Your task to perform on an android device: Is it going to rain this weekend? Image 0: 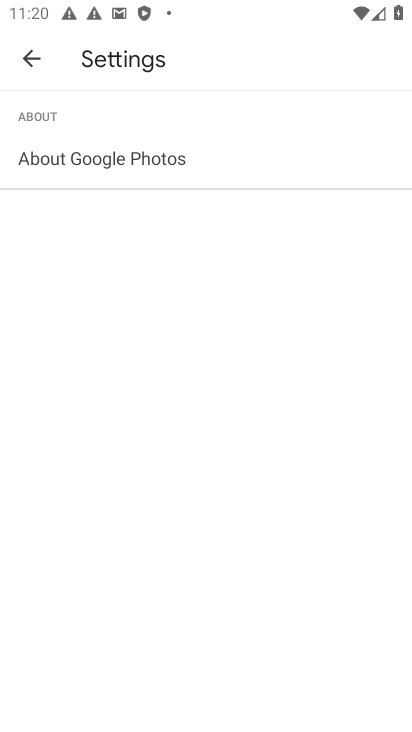
Step 0: press back button
Your task to perform on an android device: Is it going to rain this weekend? Image 1: 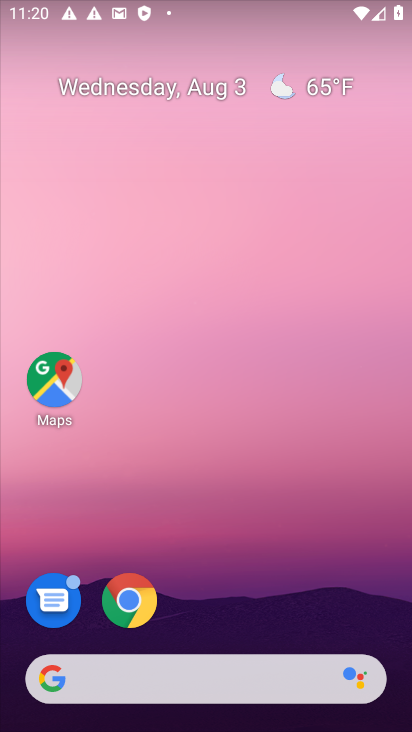
Step 1: drag from (210, 646) to (149, 19)
Your task to perform on an android device: Is it going to rain this weekend? Image 2: 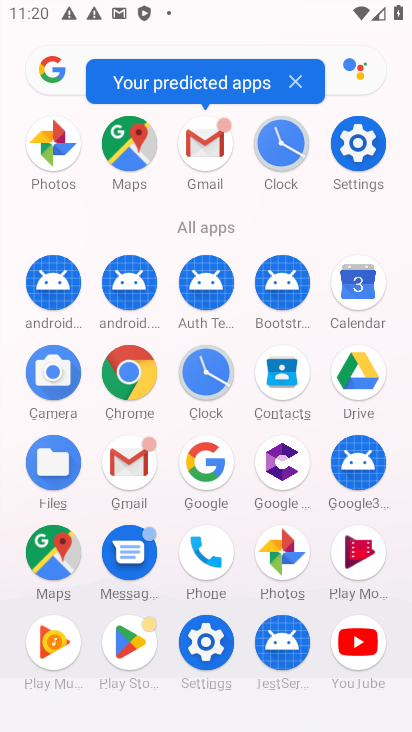
Step 2: click (213, 480)
Your task to perform on an android device: Is it going to rain this weekend? Image 3: 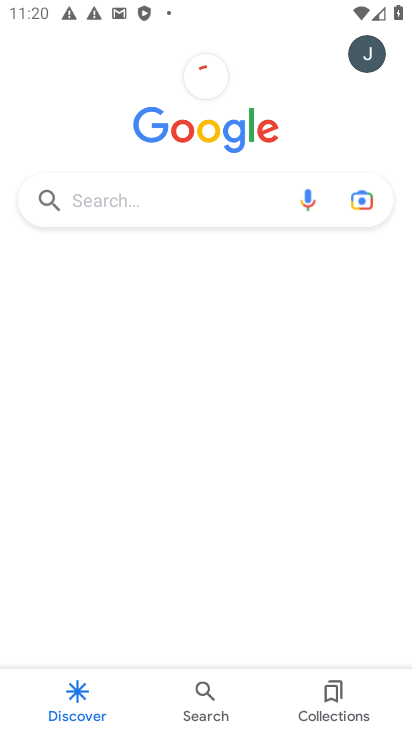
Step 3: click (130, 206)
Your task to perform on an android device: Is it going to rain this weekend? Image 4: 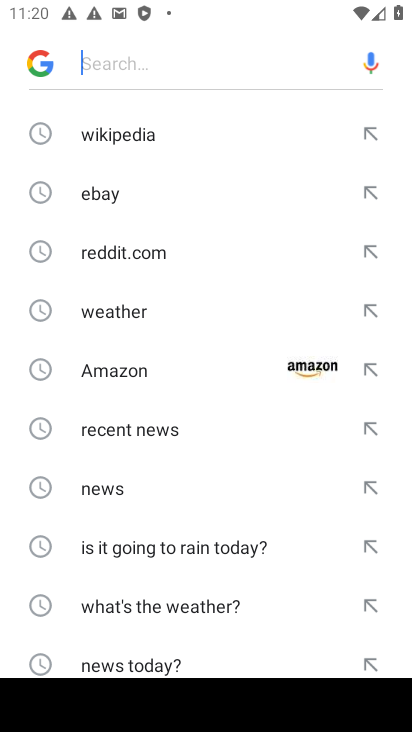
Step 4: click (106, 305)
Your task to perform on an android device: Is it going to rain this weekend? Image 5: 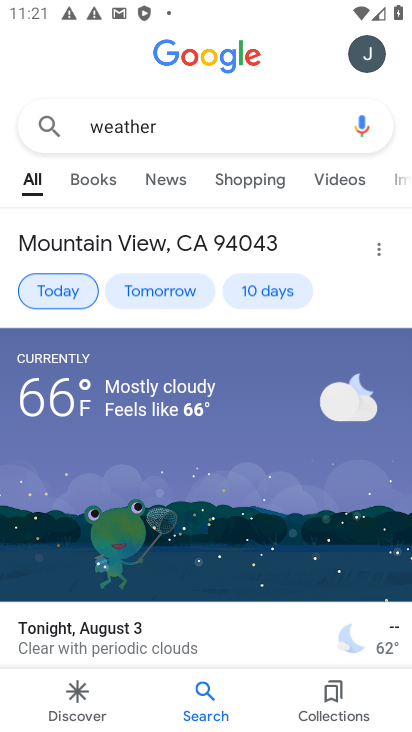
Step 5: click (245, 291)
Your task to perform on an android device: Is it going to rain this weekend? Image 6: 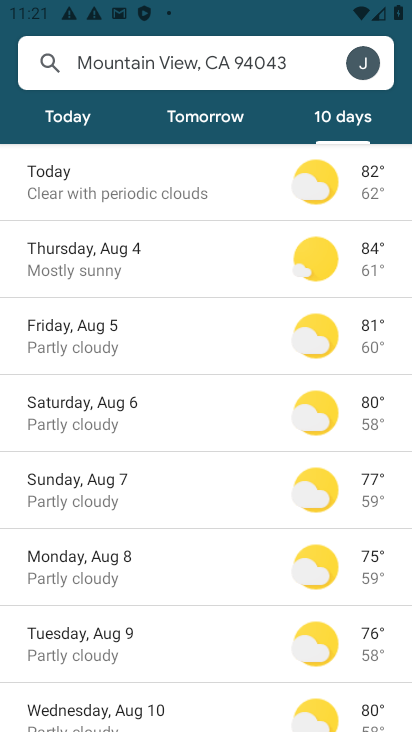
Step 6: task complete